Your task to perform on an android device: Search for pizza restaurants on Maps Image 0: 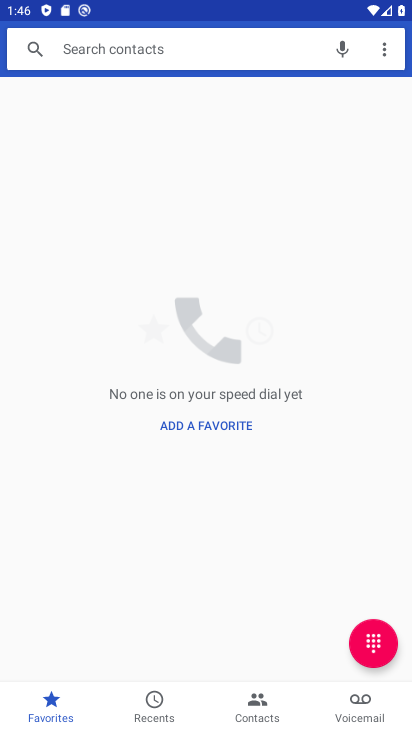
Step 0: press home button
Your task to perform on an android device: Search for pizza restaurants on Maps Image 1: 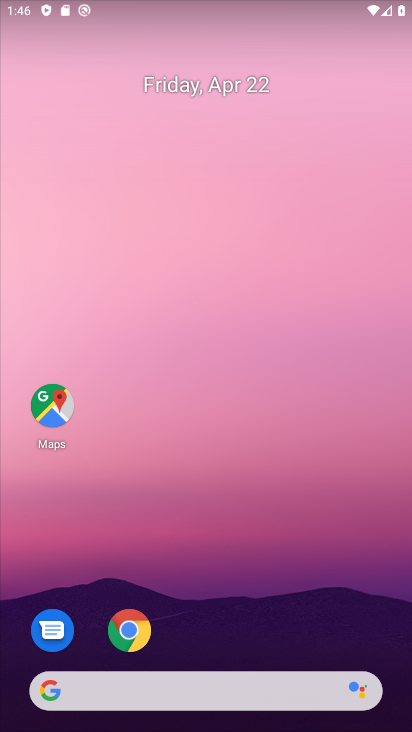
Step 1: drag from (338, 551) to (283, 77)
Your task to perform on an android device: Search for pizza restaurants on Maps Image 2: 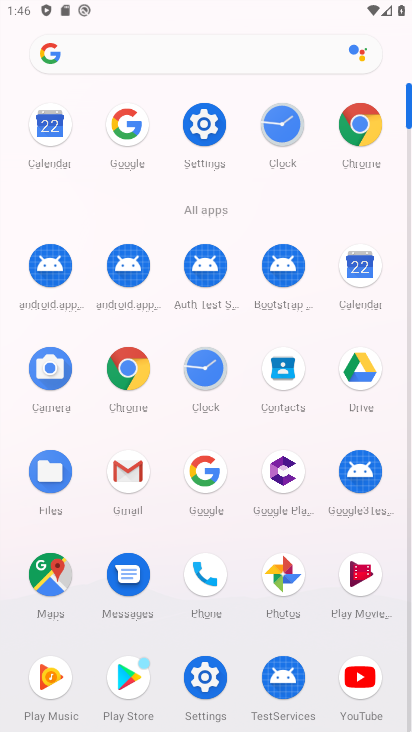
Step 2: click (48, 568)
Your task to perform on an android device: Search for pizza restaurants on Maps Image 3: 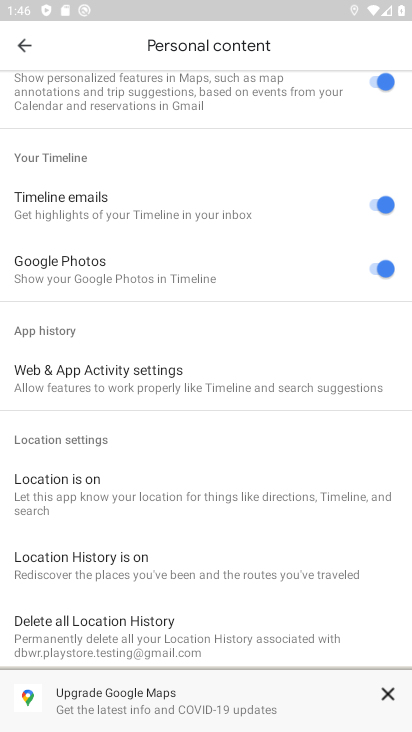
Step 3: drag from (259, 155) to (221, 545)
Your task to perform on an android device: Search for pizza restaurants on Maps Image 4: 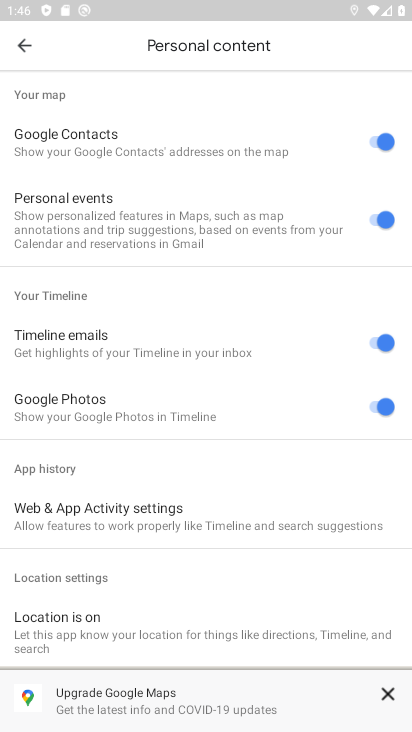
Step 4: click (22, 43)
Your task to perform on an android device: Search for pizza restaurants on Maps Image 5: 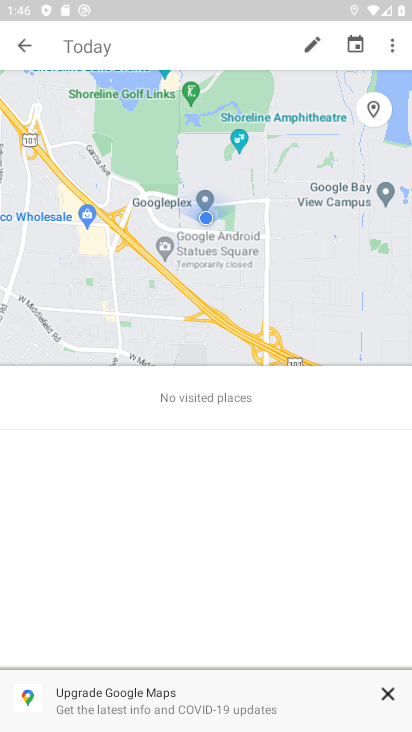
Step 5: click (184, 46)
Your task to perform on an android device: Search for pizza restaurants on Maps Image 6: 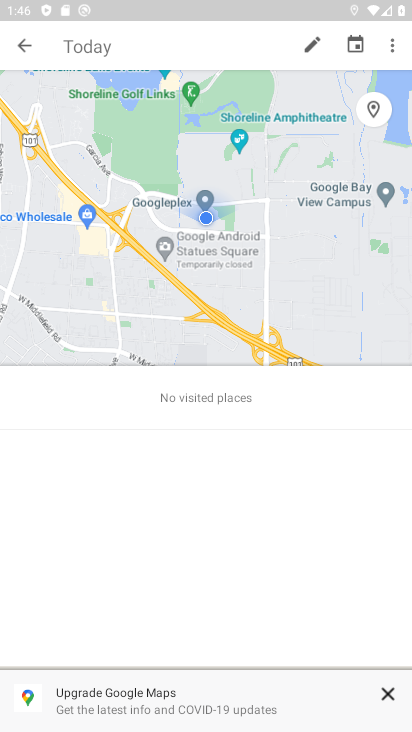
Step 6: click (22, 45)
Your task to perform on an android device: Search for pizza restaurants on Maps Image 7: 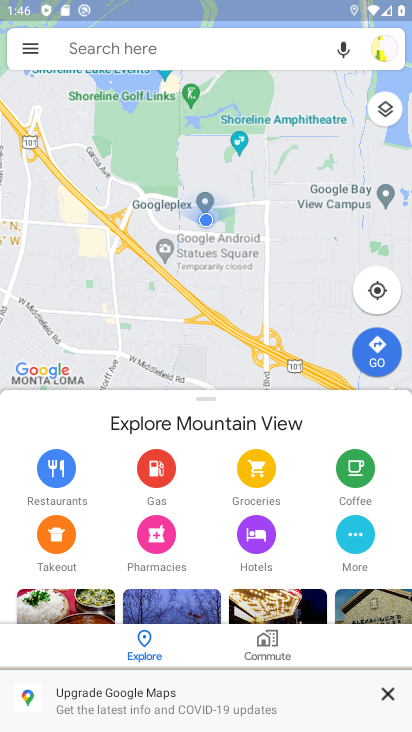
Step 7: click (82, 54)
Your task to perform on an android device: Search for pizza restaurants on Maps Image 8: 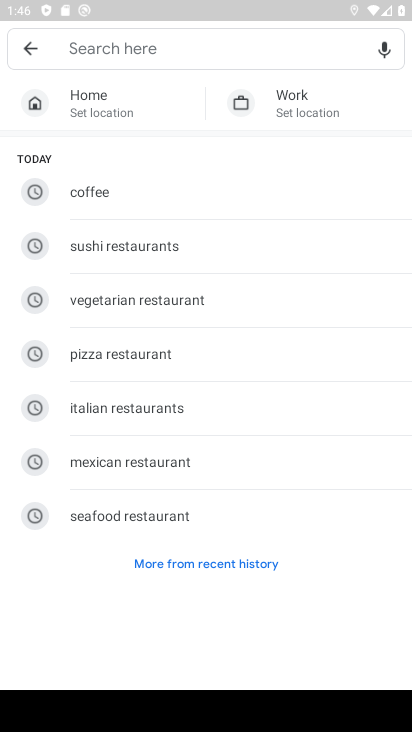
Step 8: click (190, 363)
Your task to perform on an android device: Search for pizza restaurants on Maps Image 9: 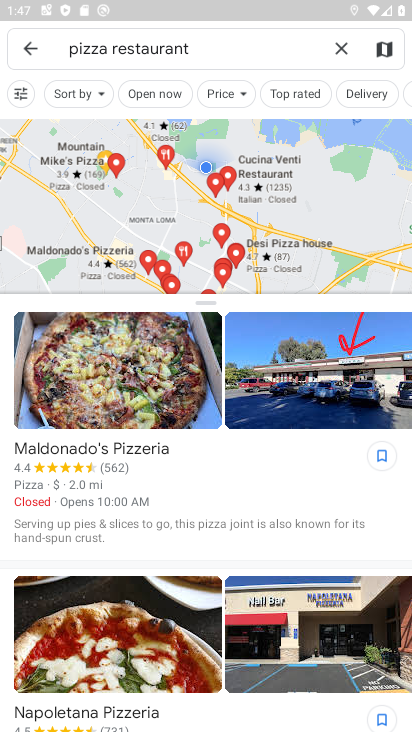
Step 9: task complete